Your task to perform on an android device: Open Google Maps and go to "Timeline" Image 0: 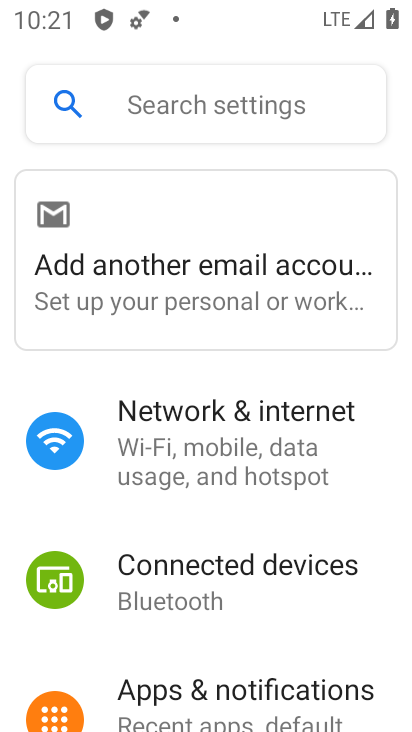
Step 0: press home button
Your task to perform on an android device: Open Google Maps and go to "Timeline" Image 1: 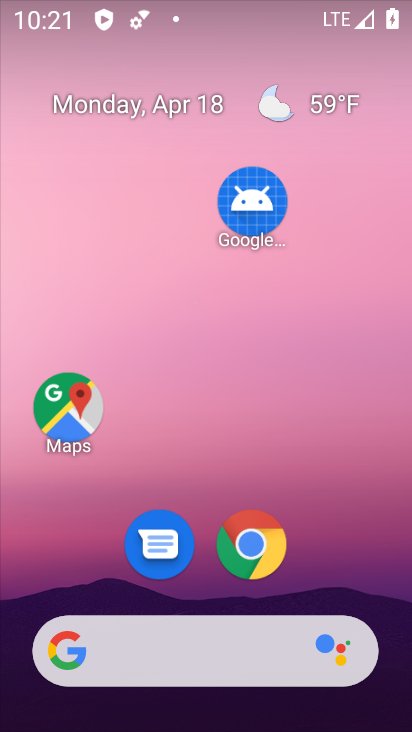
Step 1: drag from (331, 577) to (328, 389)
Your task to perform on an android device: Open Google Maps and go to "Timeline" Image 2: 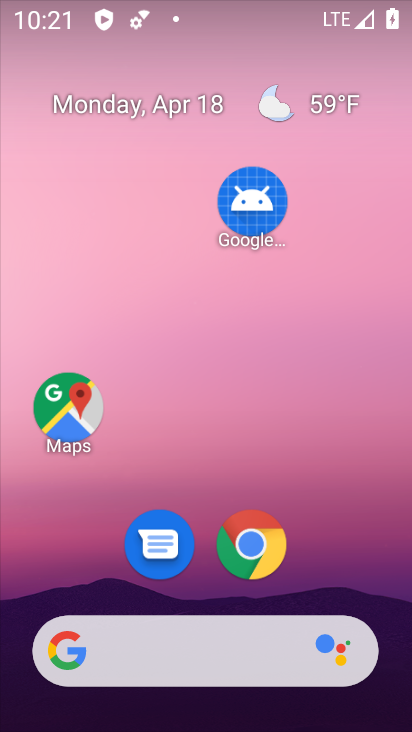
Step 2: drag from (355, 543) to (356, 163)
Your task to perform on an android device: Open Google Maps and go to "Timeline" Image 3: 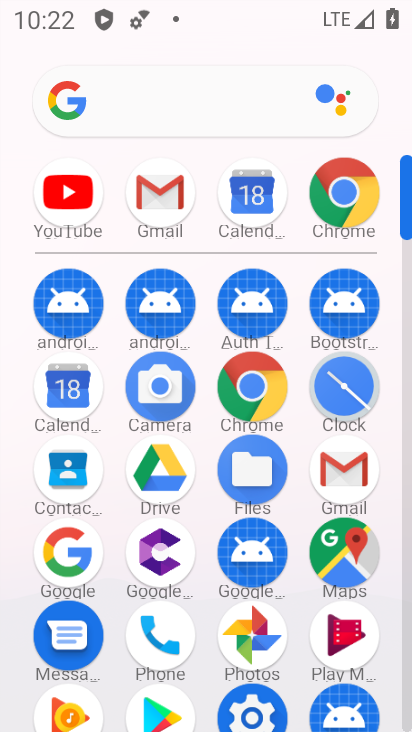
Step 3: click (332, 549)
Your task to perform on an android device: Open Google Maps and go to "Timeline" Image 4: 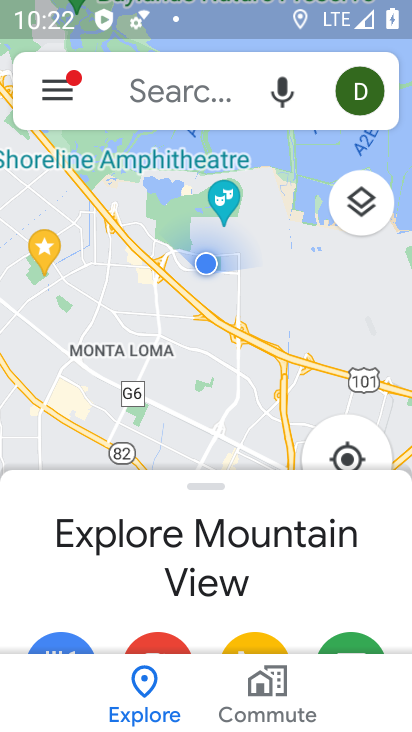
Step 4: click (48, 82)
Your task to perform on an android device: Open Google Maps and go to "Timeline" Image 5: 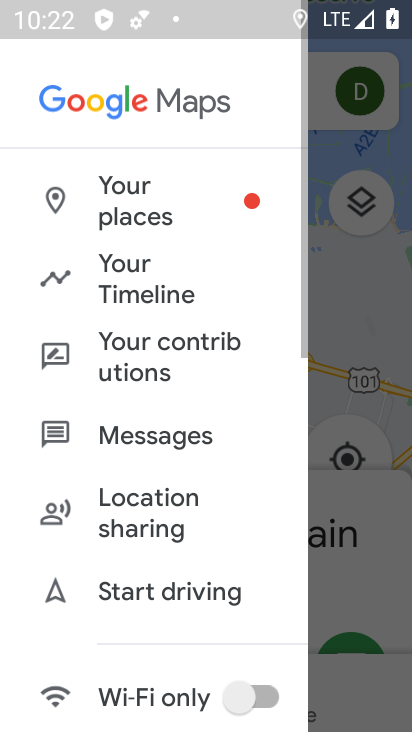
Step 5: click (117, 282)
Your task to perform on an android device: Open Google Maps and go to "Timeline" Image 6: 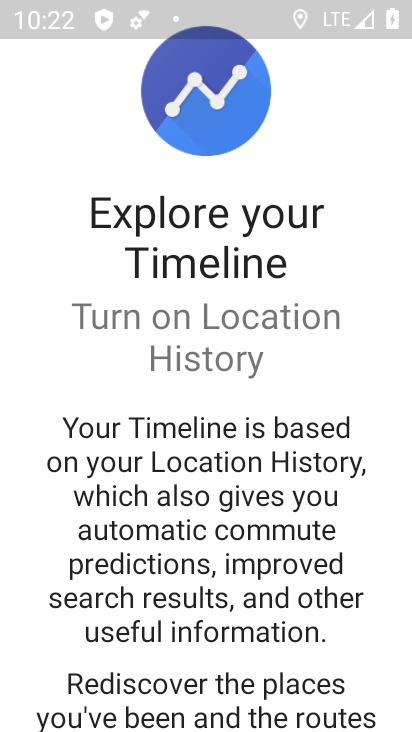
Step 6: drag from (260, 643) to (333, 147)
Your task to perform on an android device: Open Google Maps and go to "Timeline" Image 7: 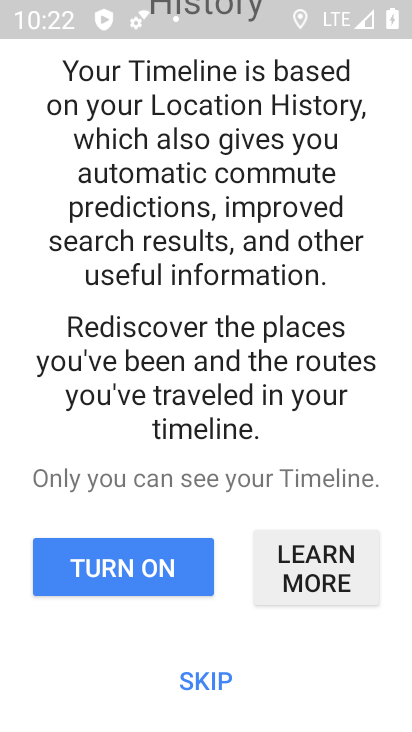
Step 7: click (187, 566)
Your task to perform on an android device: Open Google Maps and go to "Timeline" Image 8: 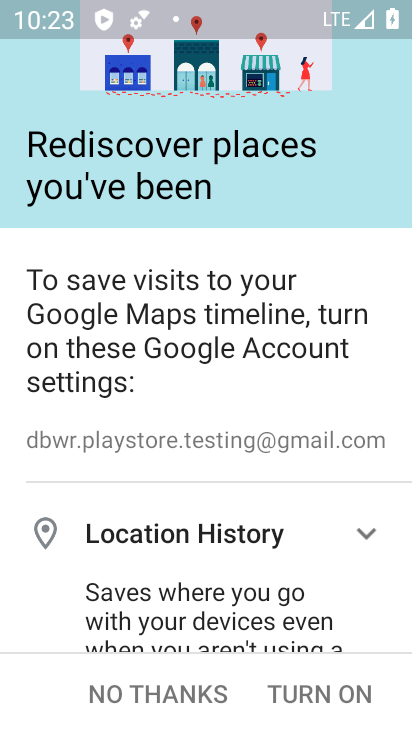
Step 8: click (173, 677)
Your task to perform on an android device: Open Google Maps and go to "Timeline" Image 9: 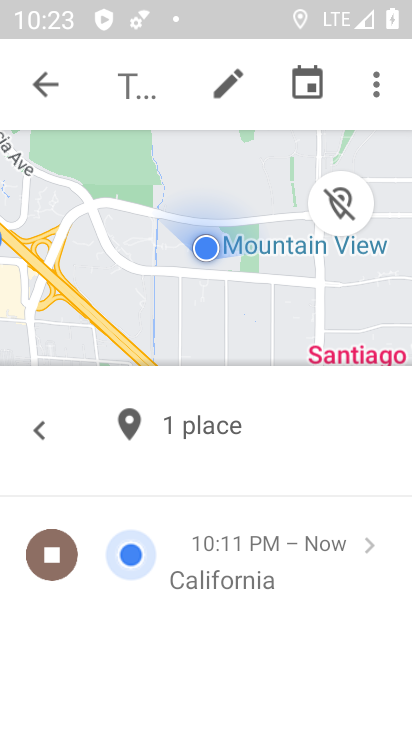
Step 9: task complete